Your task to perform on an android device: turn vacation reply on in the gmail app Image 0: 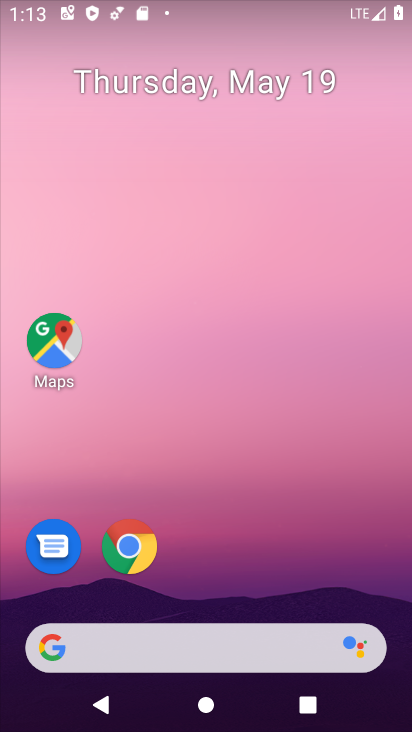
Step 0: drag from (211, 616) to (259, 141)
Your task to perform on an android device: turn vacation reply on in the gmail app Image 1: 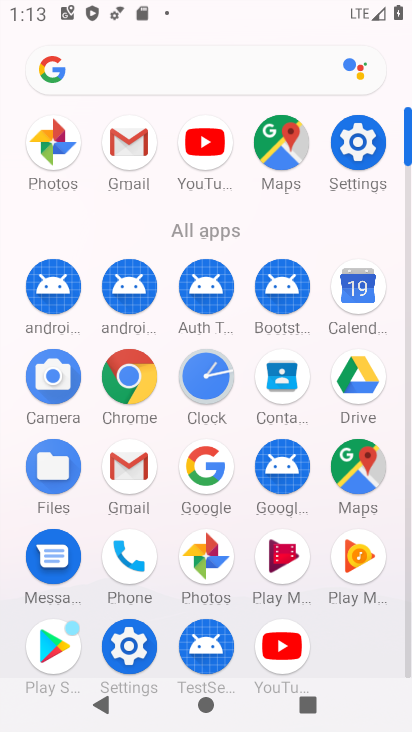
Step 1: click (128, 137)
Your task to perform on an android device: turn vacation reply on in the gmail app Image 2: 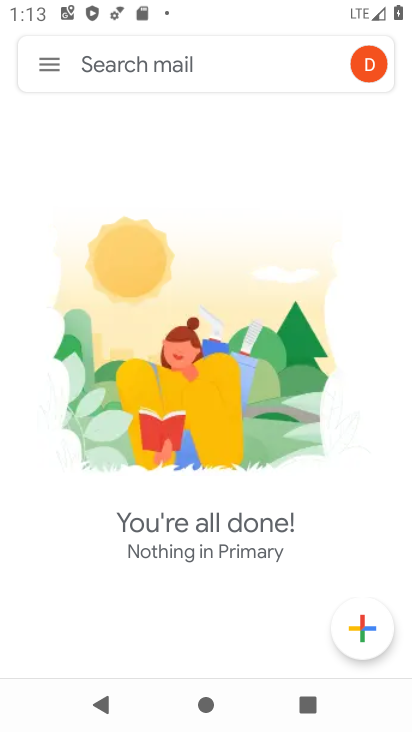
Step 2: click (36, 52)
Your task to perform on an android device: turn vacation reply on in the gmail app Image 3: 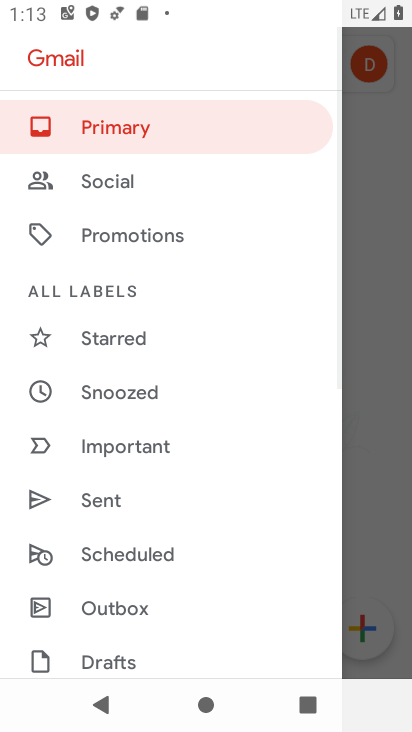
Step 3: drag from (117, 627) to (271, 141)
Your task to perform on an android device: turn vacation reply on in the gmail app Image 4: 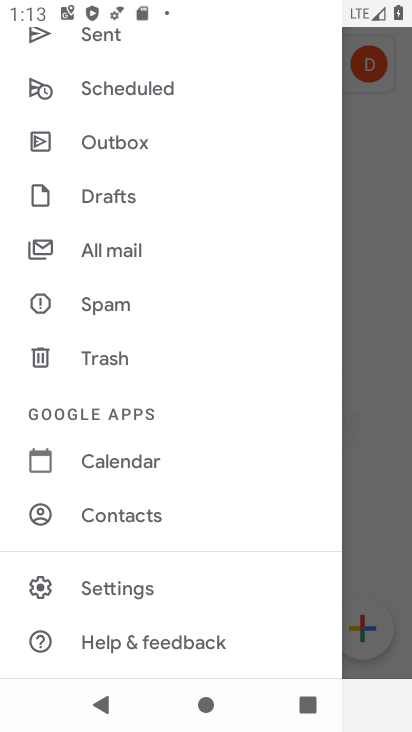
Step 4: click (112, 581)
Your task to perform on an android device: turn vacation reply on in the gmail app Image 5: 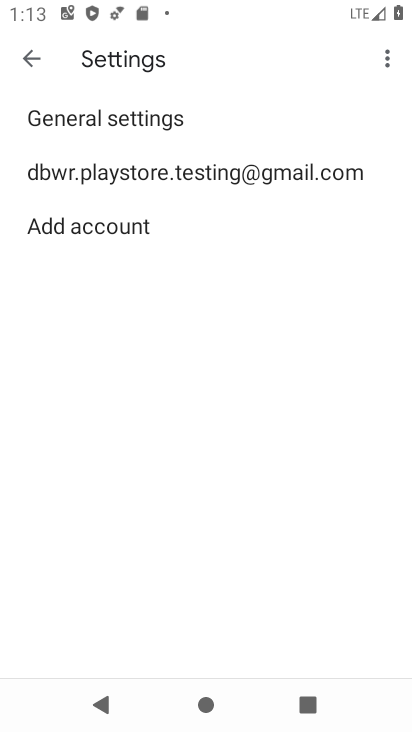
Step 5: click (250, 187)
Your task to perform on an android device: turn vacation reply on in the gmail app Image 6: 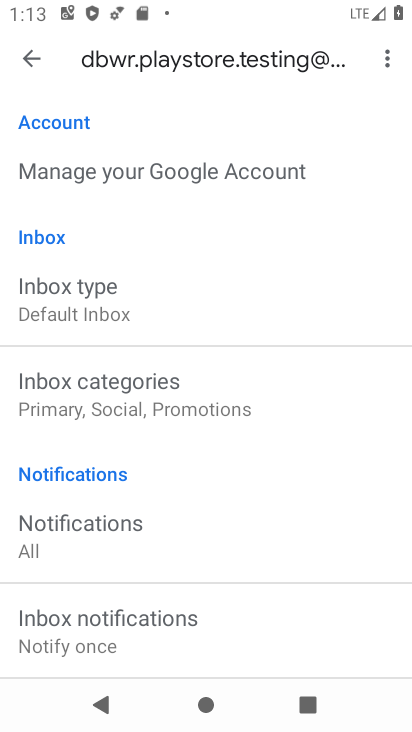
Step 6: drag from (125, 613) to (231, 248)
Your task to perform on an android device: turn vacation reply on in the gmail app Image 7: 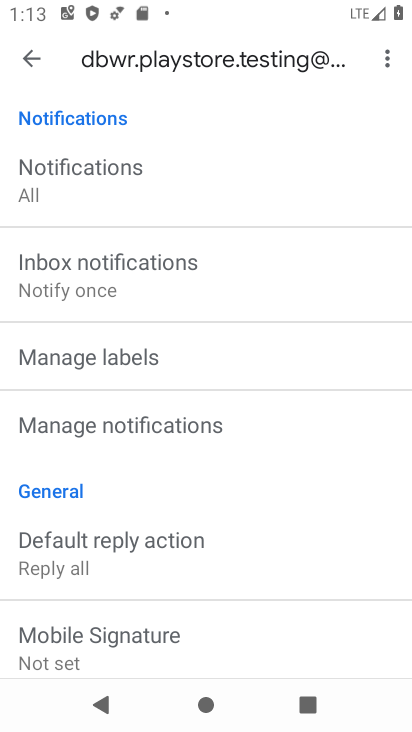
Step 7: drag from (89, 666) to (232, 263)
Your task to perform on an android device: turn vacation reply on in the gmail app Image 8: 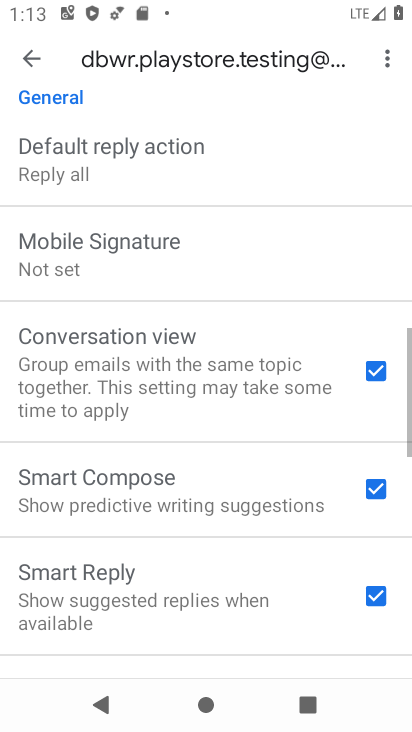
Step 8: drag from (90, 564) to (154, 240)
Your task to perform on an android device: turn vacation reply on in the gmail app Image 9: 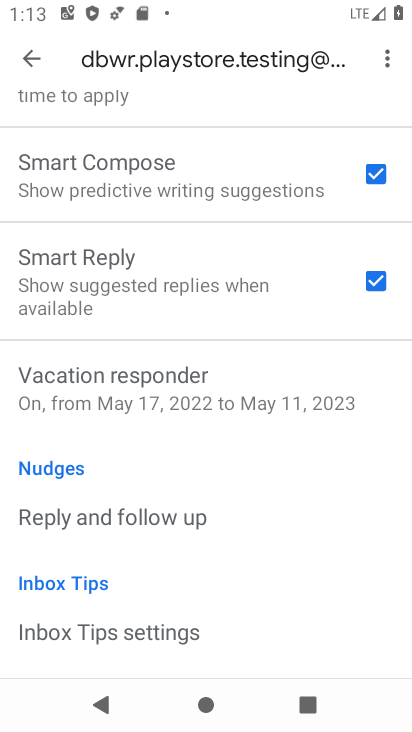
Step 9: click (184, 398)
Your task to perform on an android device: turn vacation reply on in the gmail app Image 10: 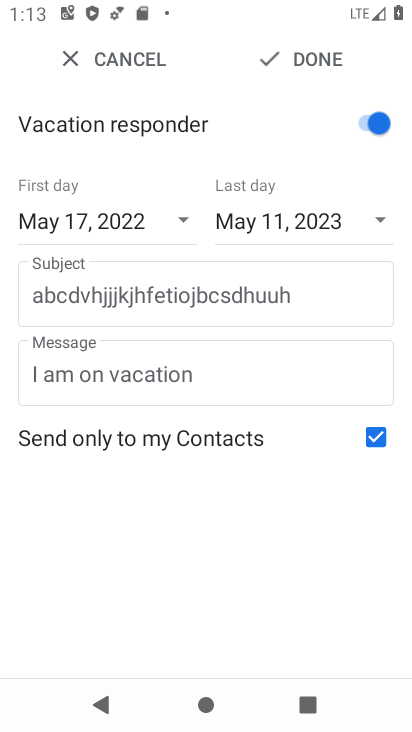
Step 10: click (325, 52)
Your task to perform on an android device: turn vacation reply on in the gmail app Image 11: 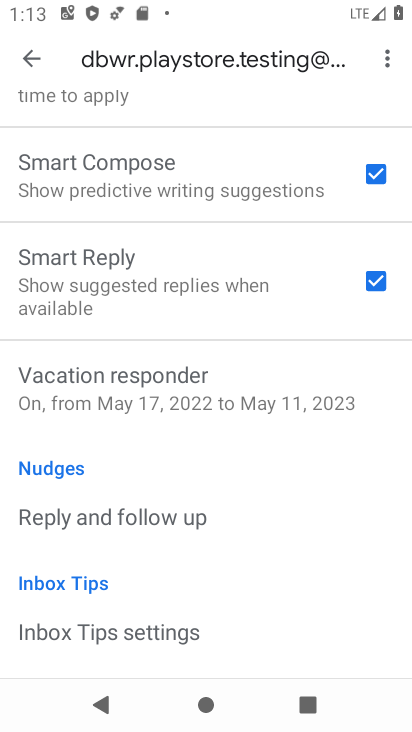
Step 11: task complete